Your task to perform on an android device: turn on sleep mode Image 0: 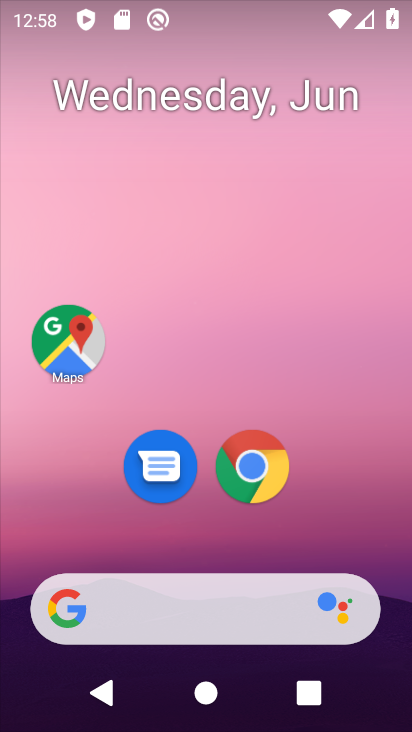
Step 0: click (97, 299)
Your task to perform on an android device: turn on sleep mode Image 1: 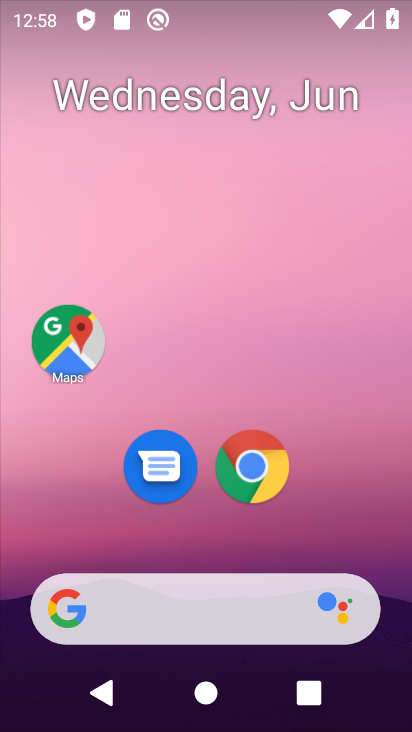
Step 1: drag from (95, 552) to (232, 0)
Your task to perform on an android device: turn on sleep mode Image 2: 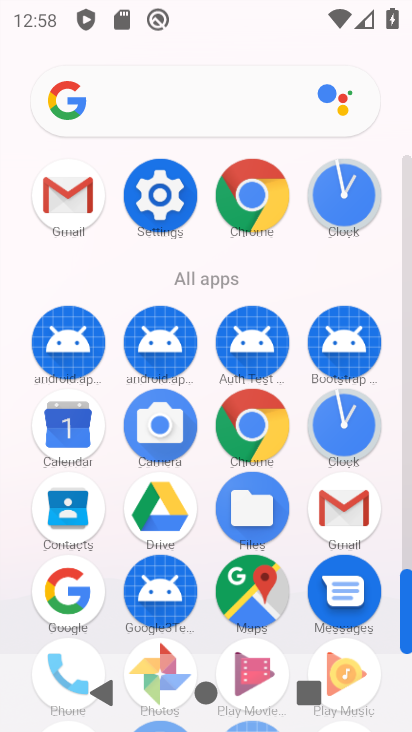
Step 2: drag from (144, 601) to (224, 248)
Your task to perform on an android device: turn on sleep mode Image 3: 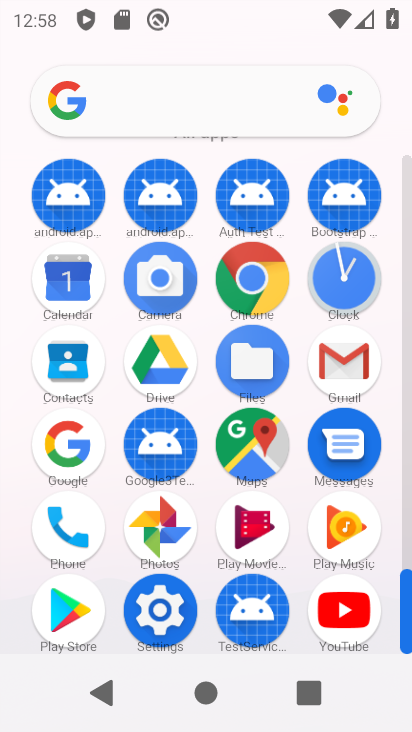
Step 3: click (151, 623)
Your task to perform on an android device: turn on sleep mode Image 4: 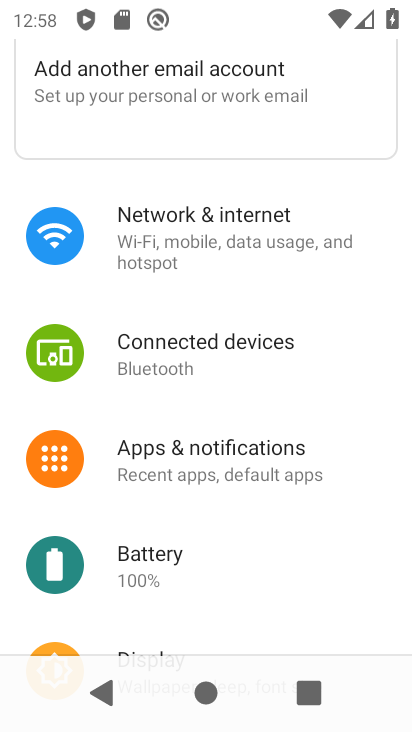
Step 4: drag from (177, 600) to (269, 327)
Your task to perform on an android device: turn on sleep mode Image 5: 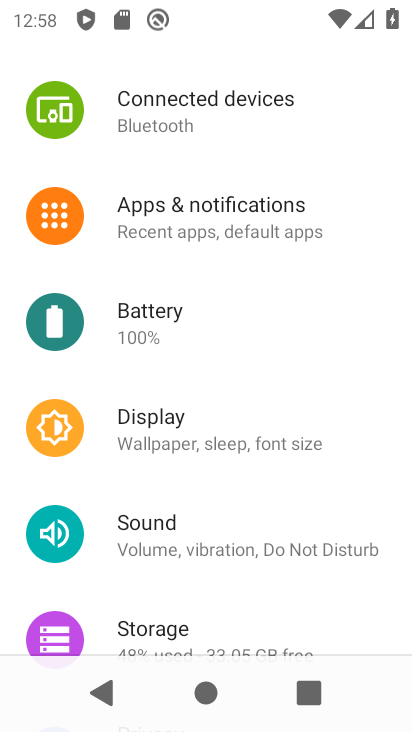
Step 5: click (191, 438)
Your task to perform on an android device: turn on sleep mode Image 6: 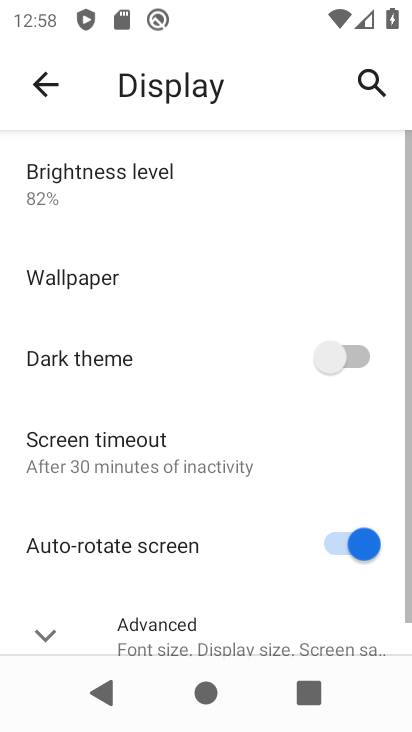
Step 6: drag from (190, 603) to (265, 253)
Your task to perform on an android device: turn on sleep mode Image 7: 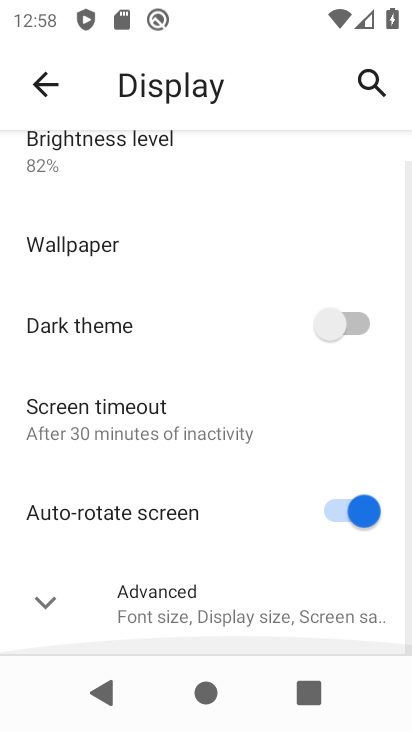
Step 7: click (190, 610)
Your task to perform on an android device: turn on sleep mode Image 8: 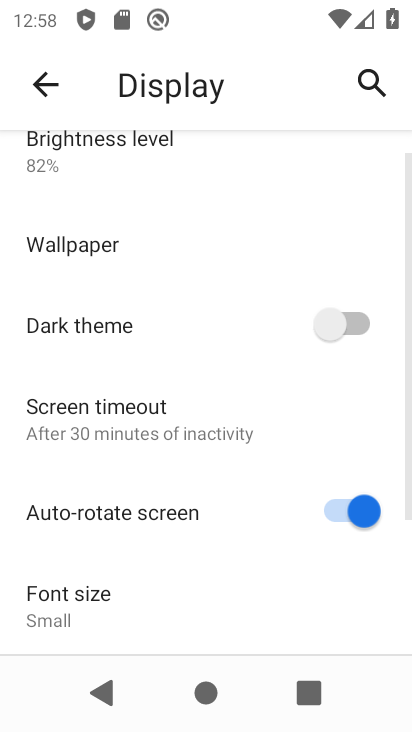
Step 8: task complete